Your task to perform on an android device: find photos in the google photos app Image 0: 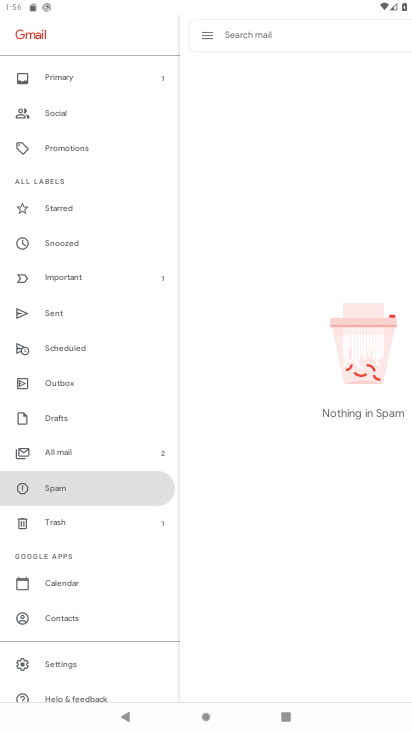
Step 0: press home button
Your task to perform on an android device: find photos in the google photos app Image 1: 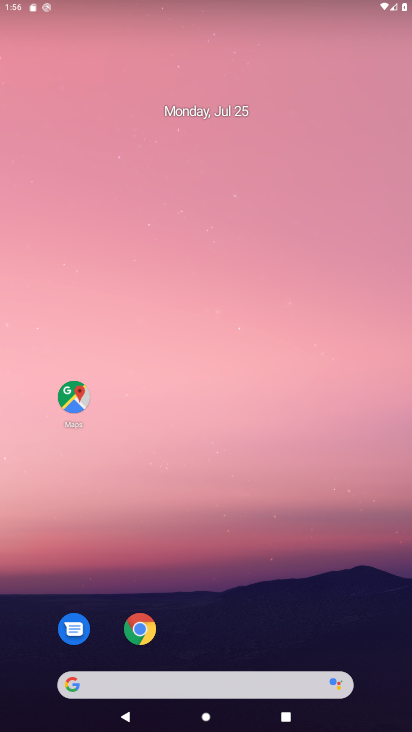
Step 1: drag from (331, 366) to (270, 23)
Your task to perform on an android device: find photos in the google photos app Image 2: 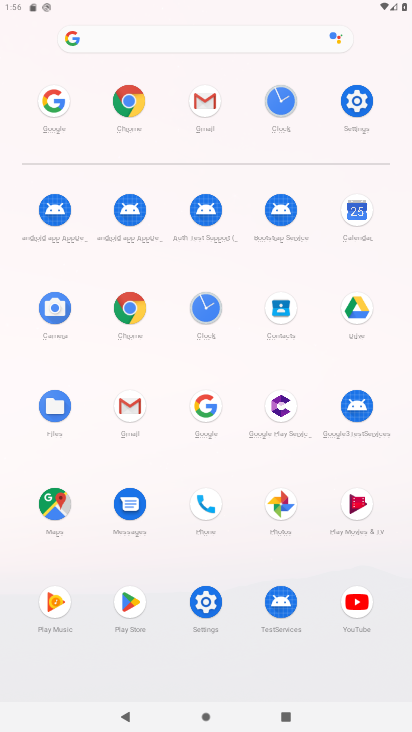
Step 2: click (281, 516)
Your task to perform on an android device: find photos in the google photos app Image 3: 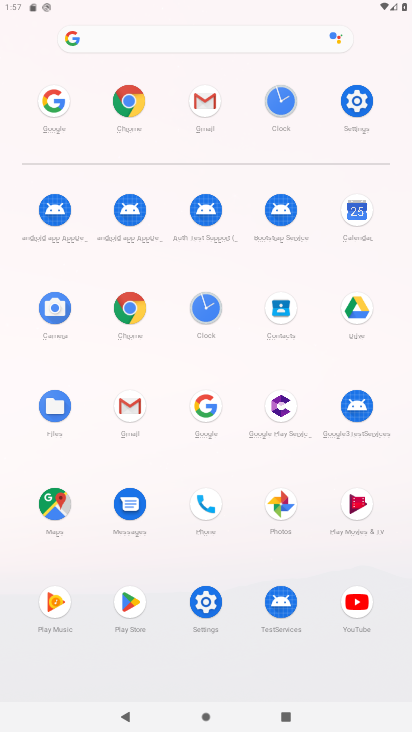
Step 3: click (283, 495)
Your task to perform on an android device: find photos in the google photos app Image 4: 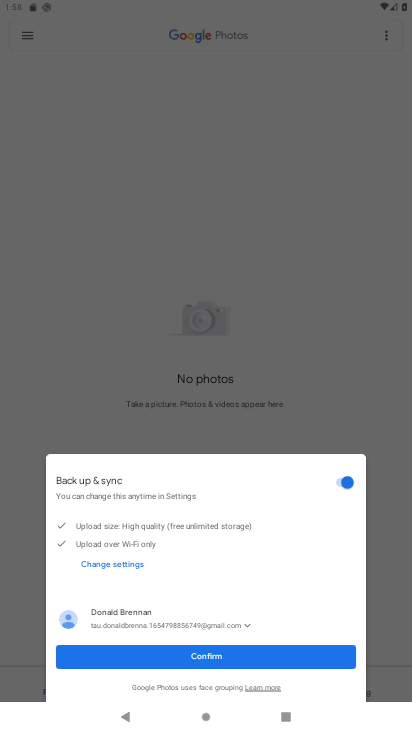
Step 4: click (266, 653)
Your task to perform on an android device: find photos in the google photos app Image 5: 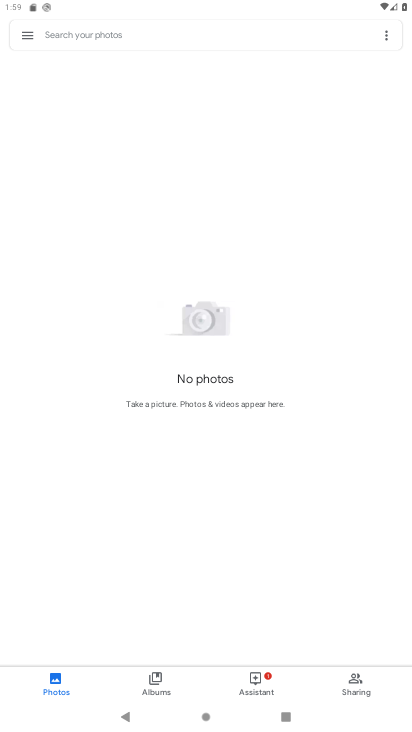
Step 5: task complete